Your task to perform on an android device: Open accessibility settings Image 0: 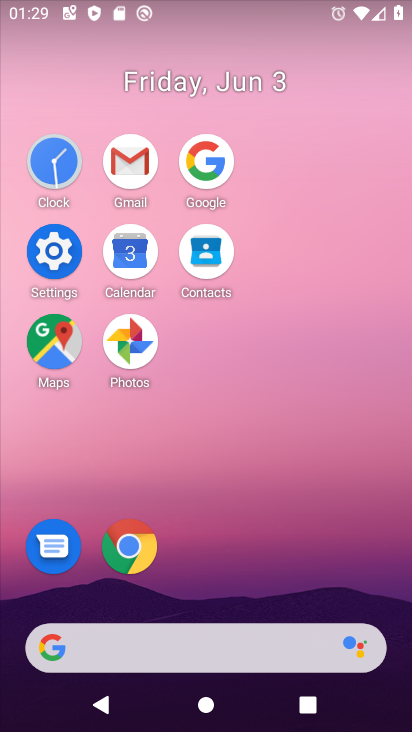
Step 0: click (63, 251)
Your task to perform on an android device: Open accessibility settings Image 1: 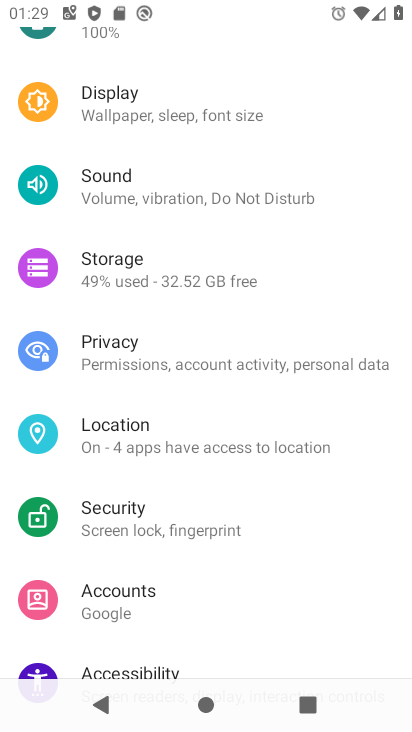
Step 1: drag from (304, 554) to (347, 130)
Your task to perform on an android device: Open accessibility settings Image 2: 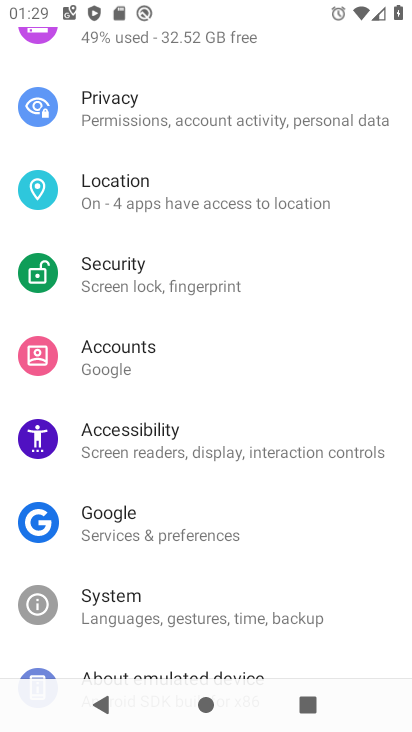
Step 2: click (222, 454)
Your task to perform on an android device: Open accessibility settings Image 3: 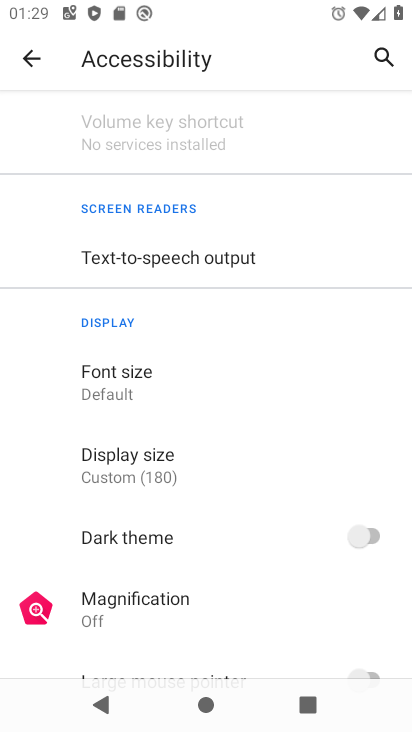
Step 3: task complete